Your task to perform on an android device: turn smart compose on in the gmail app Image 0: 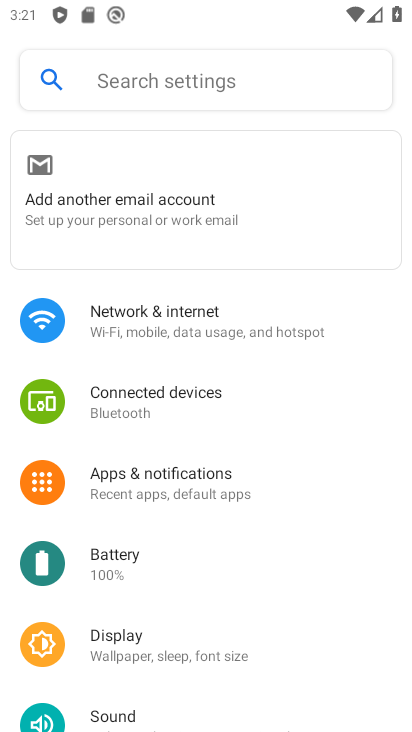
Step 0: press home button
Your task to perform on an android device: turn smart compose on in the gmail app Image 1: 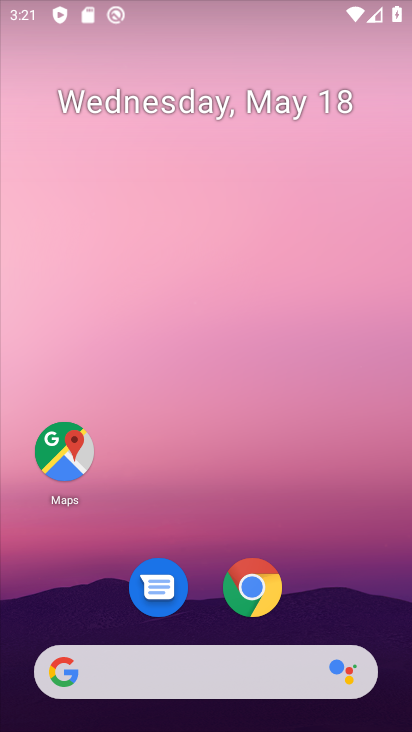
Step 1: drag from (329, 590) to (350, 165)
Your task to perform on an android device: turn smart compose on in the gmail app Image 2: 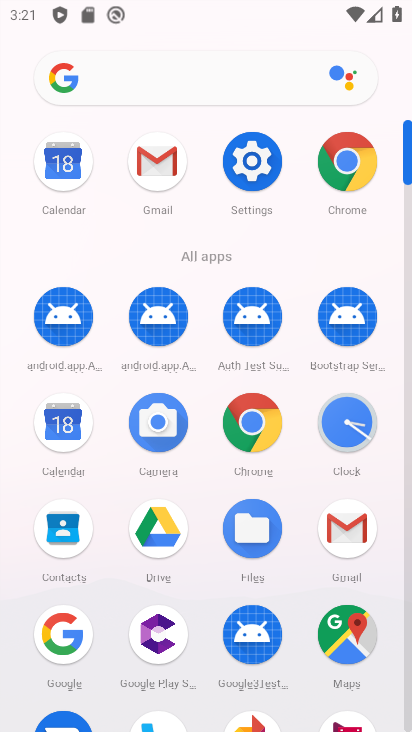
Step 2: click (351, 540)
Your task to perform on an android device: turn smart compose on in the gmail app Image 3: 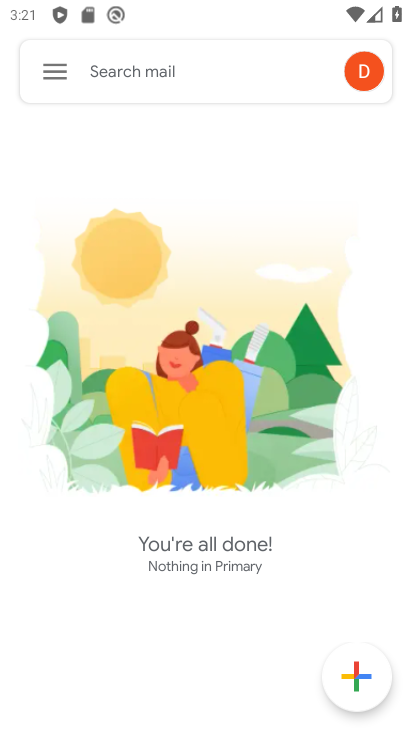
Step 3: click (56, 73)
Your task to perform on an android device: turn smart compose on in the gmail app Image 4: 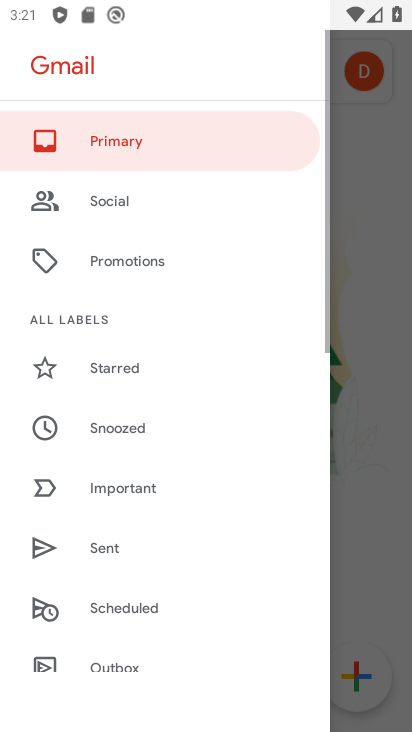
Step 4: drag from (202, 650) to (226, 521)
Your task to perform on an android device: turn smart compose on in the gmail app Image 5: 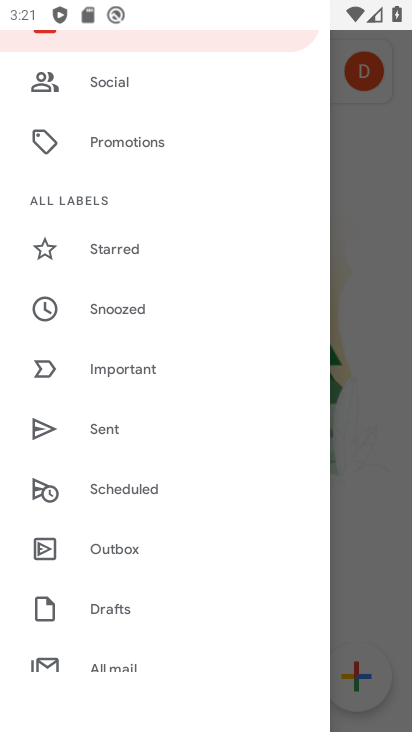
Step 5: drag from (175, 168) to (187, 522)
Your task to perform on an android device: turn smart compose on in the gmail app Image 6: 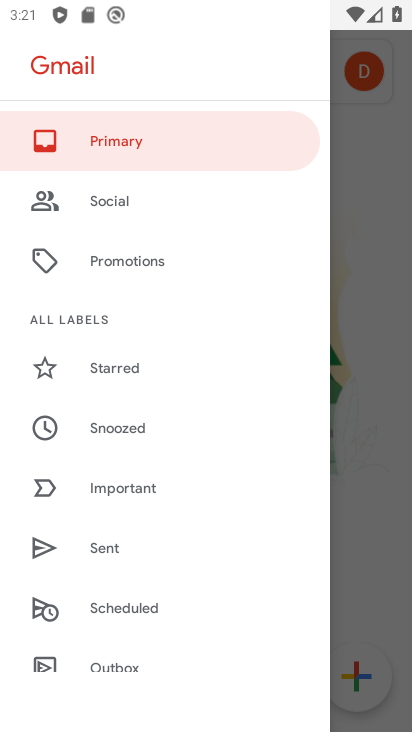
Step 6: drag from (183, 423) to (233, 150)
Your task to perform on an android device: turn smart compose on in the gmail app Image 7: 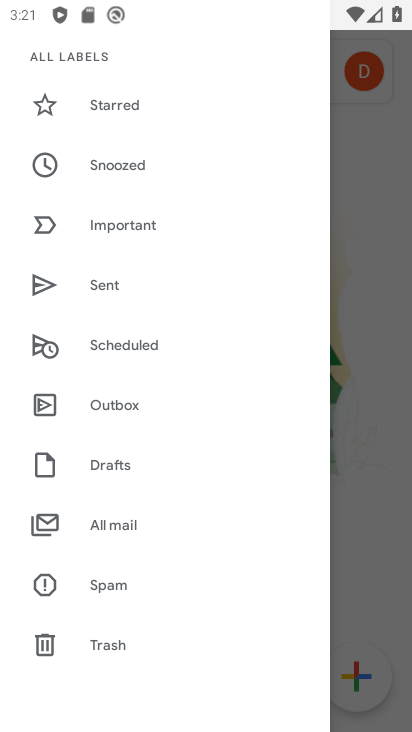
Step 7: drag from (151, 533) to (185, 671)
Your task to perform on an android device: turn smart compose on in the gmail app Image 8: 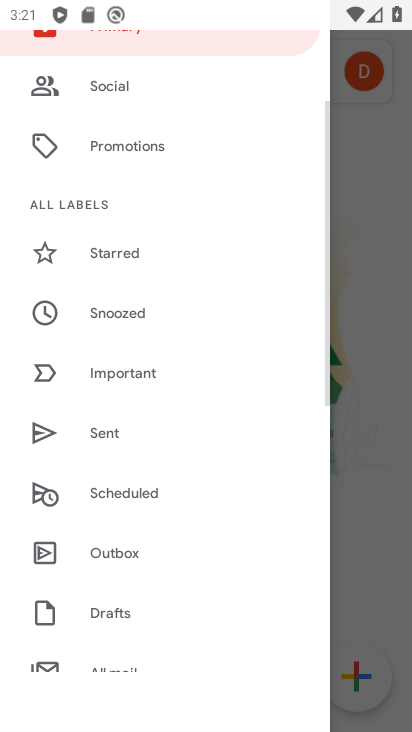
Step 8: drag from (157, 321) to (179, 635)
Your task to perform on an android device: turn smart compose on in the gmail app Image 9: 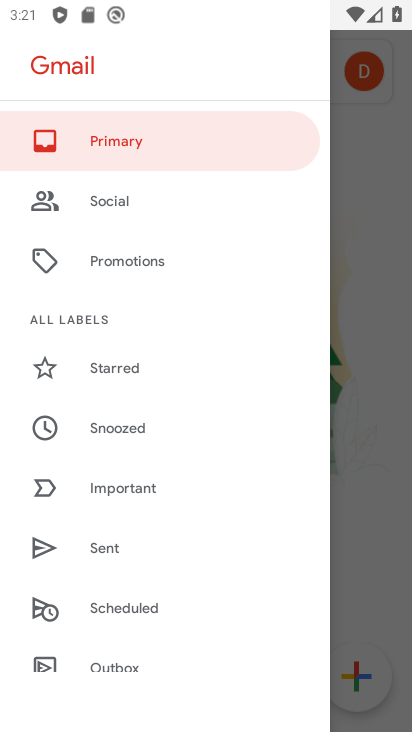
Step 9: drag from (140, 621) to (207, 95)
Your task to perform on an android device: turn smart compose on in the gmail app Image 10: 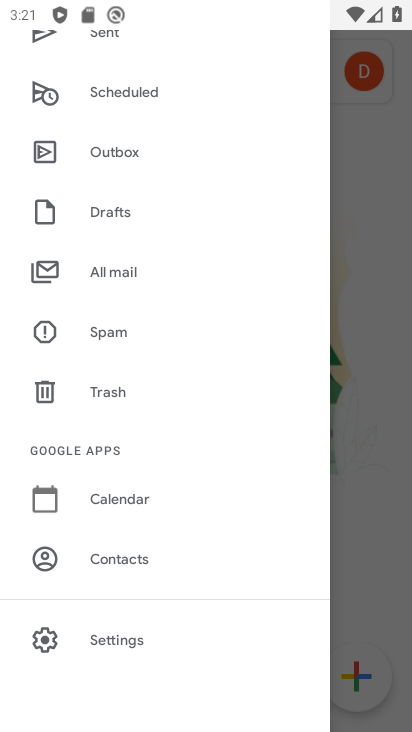
Step 10: click (124, 646)
Your task to perform on an android device: turn smart compose on in the gmail app Image 11: 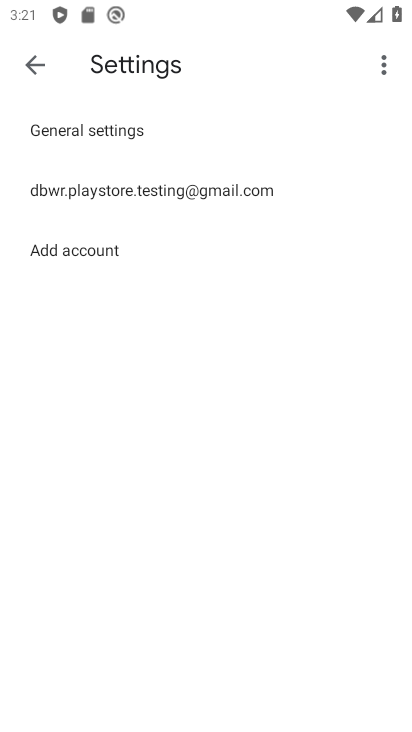
Step 11: click (167, 189)
Your task to perform on an android device: turn smart compose on in the gmail app Image 12: 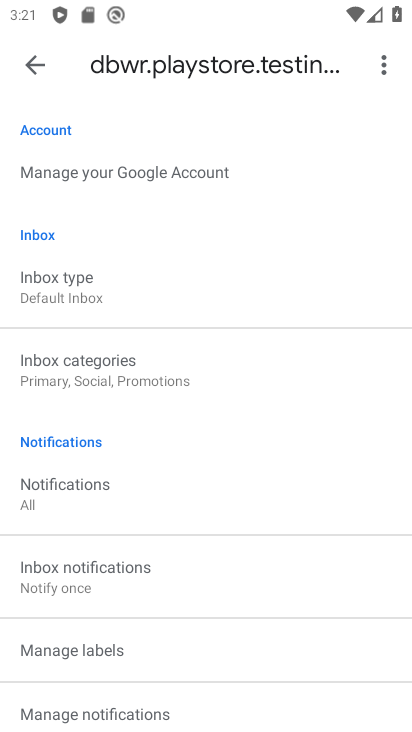
Step 12: task complete